Your task to perform on an android device: What is the news today? Image 0: 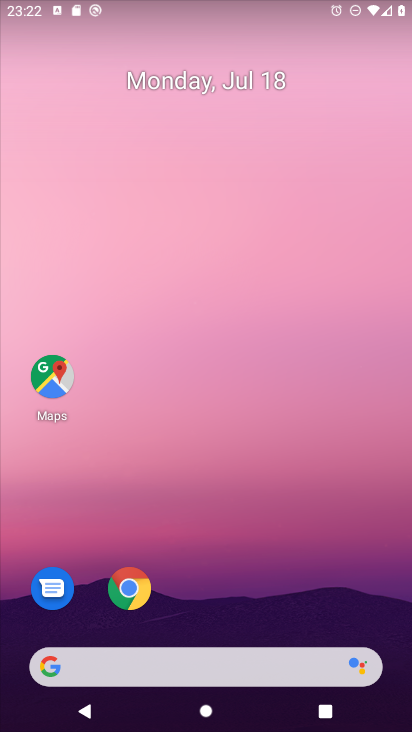
Step 0: drag from (1, 284) to (396, 295)
Your task to perform on an android device: What is the news today? Image 1: 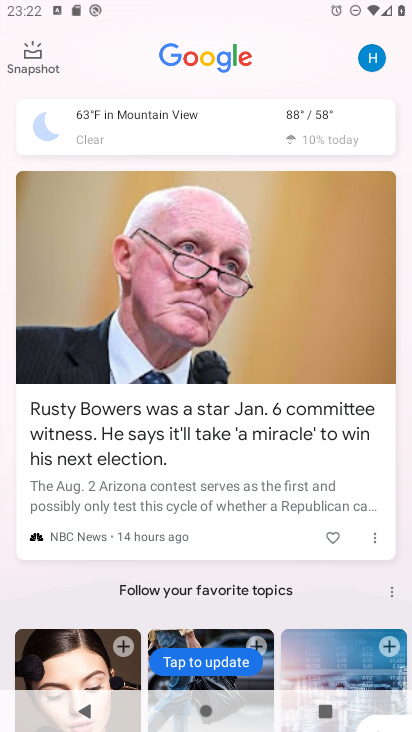
Step 1: task complete